Your task to perform on an android device: show emergency info Image 0: 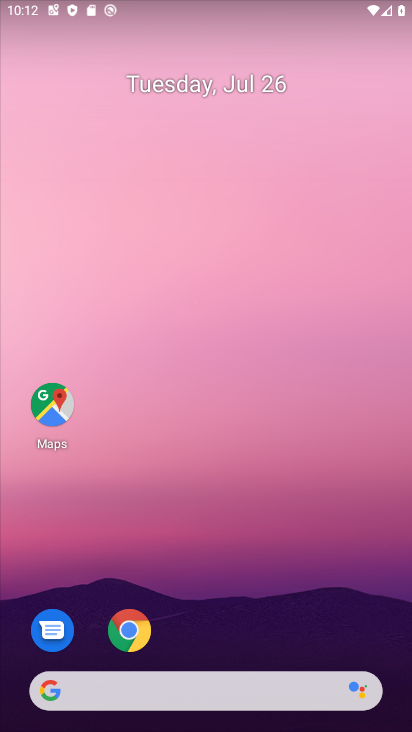
Step 0: drag from (354, 648) to (319, 163)
Your task to perform on an android device: show emergency info Image 1: 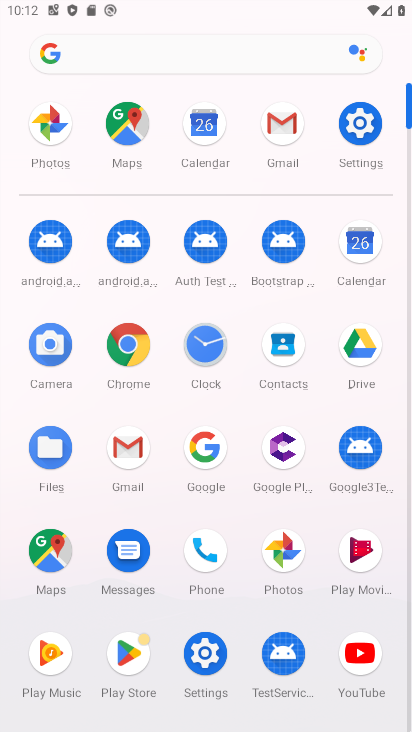
Step 1: click (205, 649)
Your task to perform on an android device: show emergency info Image 2: 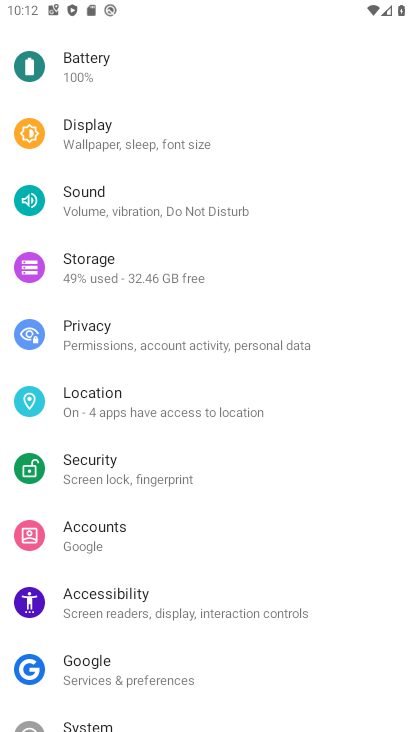
Step 2: drag from (349, 637) to (331, 323)
Your task to perform on an android device: show emergency info Image 3: 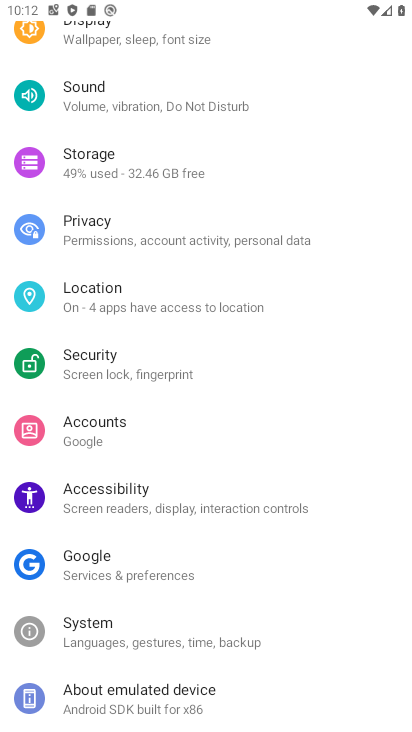
Step 3: click (98, 702)
Your task to perform on an android device: show emergency info Image 4: 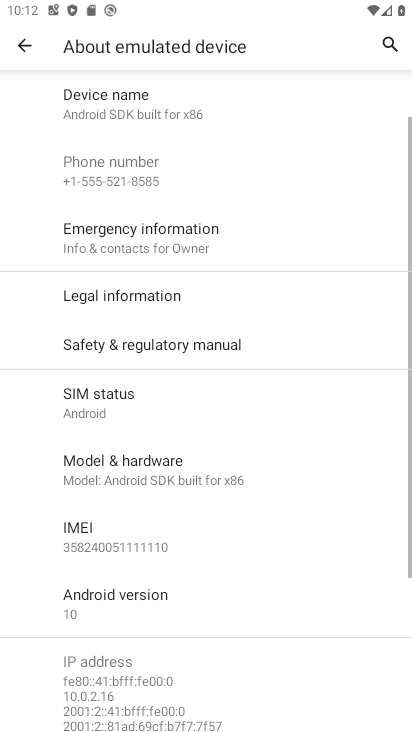
Step 4: click (132, 241)
Your task to perform on an android device: show emergency info Image 5: 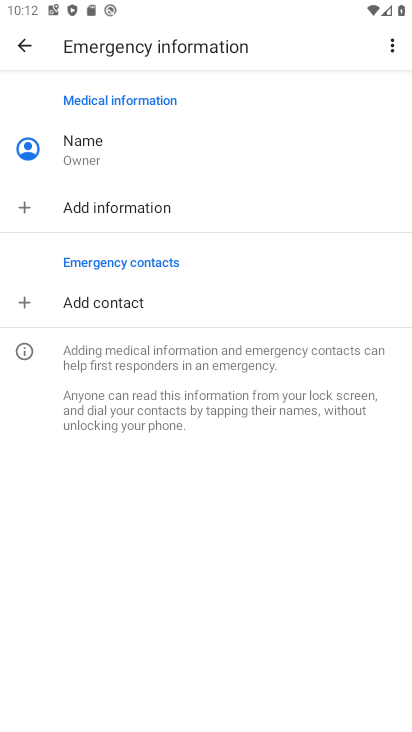
Step 5: task complete